Your task to perform on an android device: Play the last video I watched on Youtube Image 0: 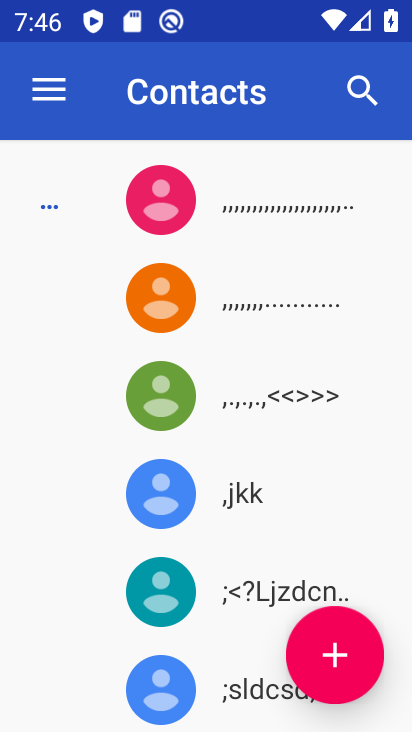
Step 0: press home button
Your task to perform on an android device: Play the last video I watched on Youtube Image 1: 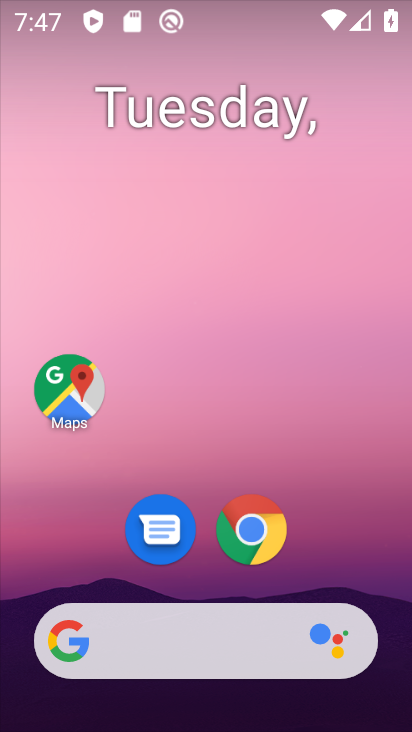
Step 1: drag from (226, 645) to (330, 107)
Your task to perform on an android device: Play the last video I watched on Youtube Image 2: 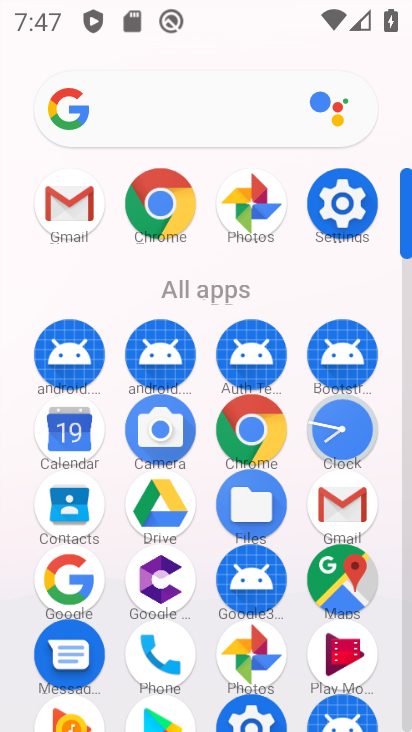
Step 2: drag from (204, 668) to (329, 202)
Your task to perform on an android device: Play the last video I watched on Youtube Image 3: 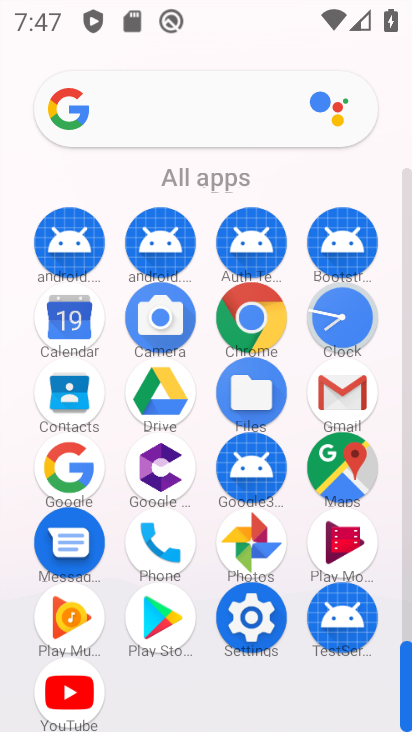
Step 3: click (70, 688)
Your task to perform on an android device: Play the last video I watched on Youtube Image 4: 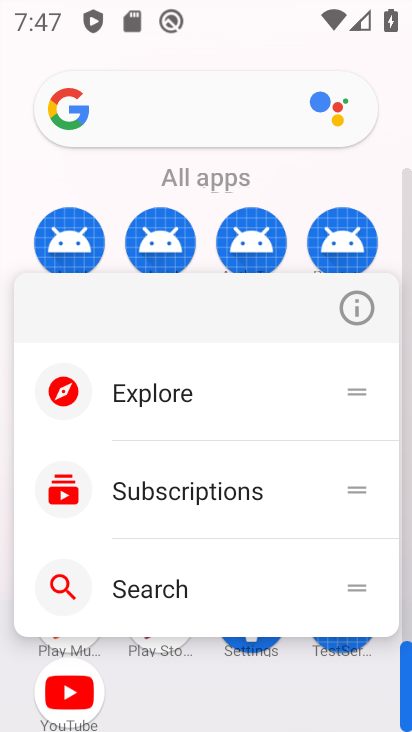
Step 4: click (70, 694)
Your task to perform on an android device: Play the last video I watched on Youtube Image 5: 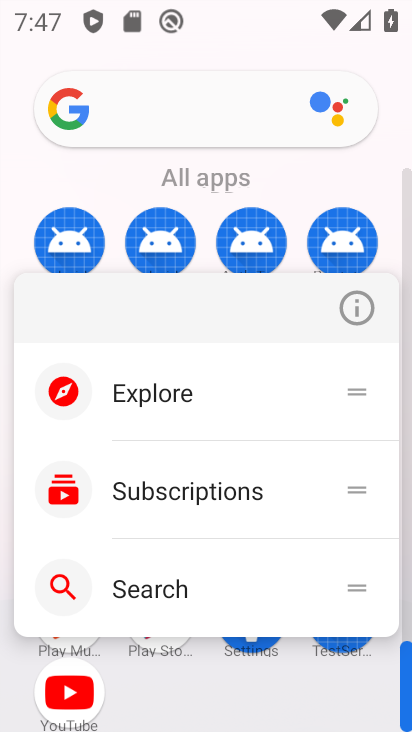
Step 5: click (72, 697)
Your task to perform on an android device: Play the last video I watched on Youtube Image 6: 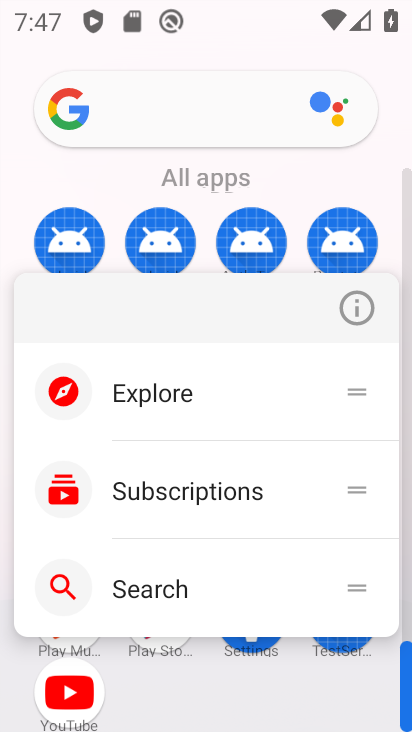
Step 6: click (66, 699)
Your task to perform on an android device: Play the last video I watched on Youtube Image 7: 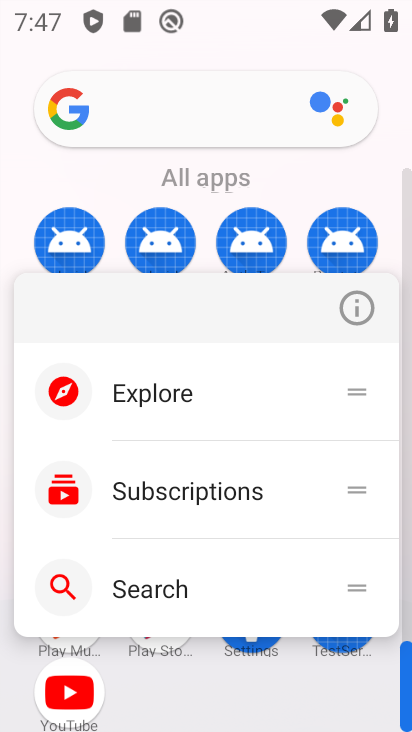
Step 7: click (71, 696)
Your task to perform on an android device: Play the last video I watched on Youtube Image 8: 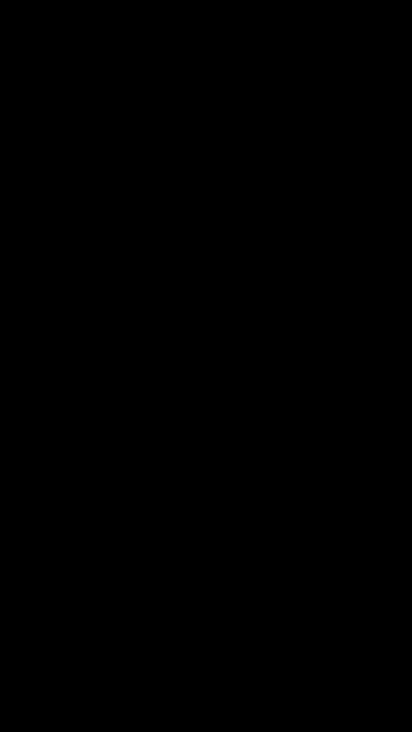
Step 8: task complete